Your task to perform on an android device: Open Google Chrome and open the bookmarks view Image 0: 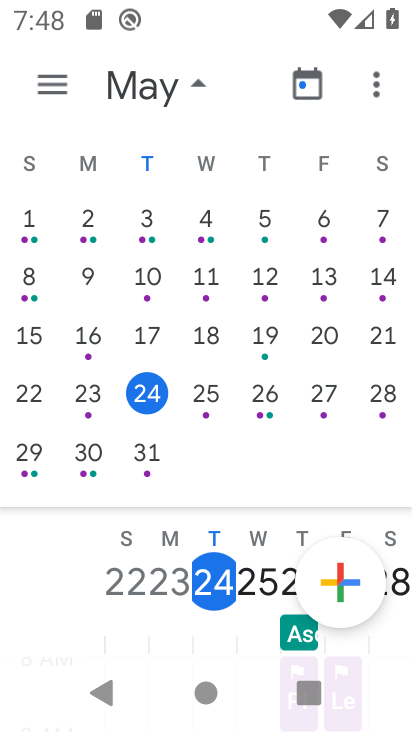
Step 0: press home button
Your task to perform on an android device: Open Google Chrome and open the bookmarks view Image 1: 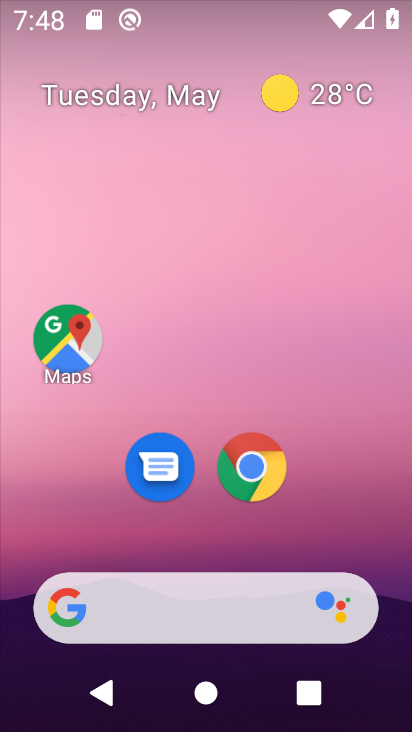
Step 1: click (250, 461)
Your task to perform on an android device: Open Google Chrome and open the bookmarks view Image 2: 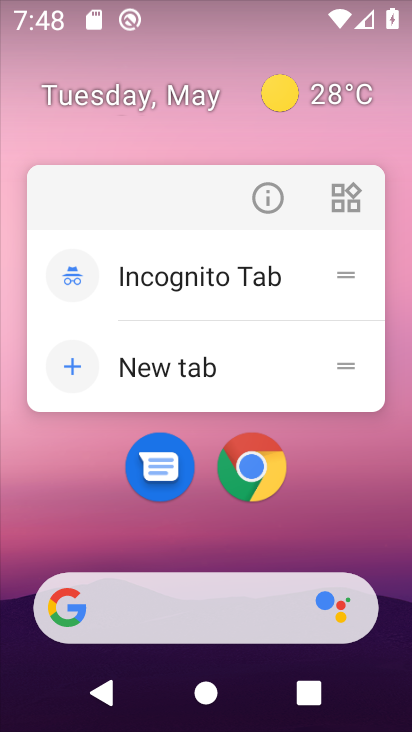
Step 2: click (244, 463)
Your task to perform on an android device: Open Google Chrome and open the bookmarks view Image 3: 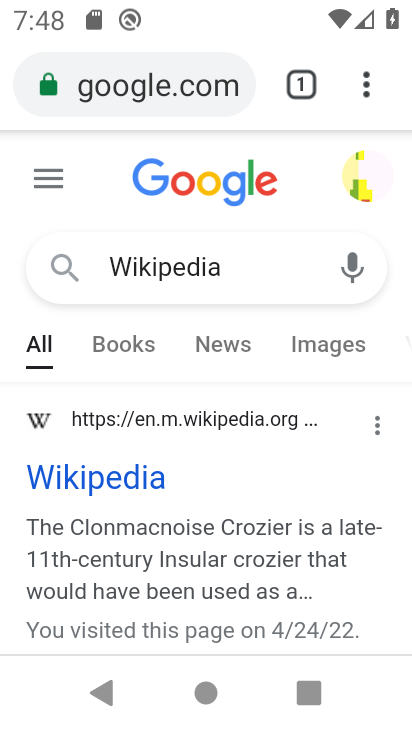
Step 3: click (368, 79)
Your task to perform on an android device: Open Google Chrome and open the bookmarks view Image 4: 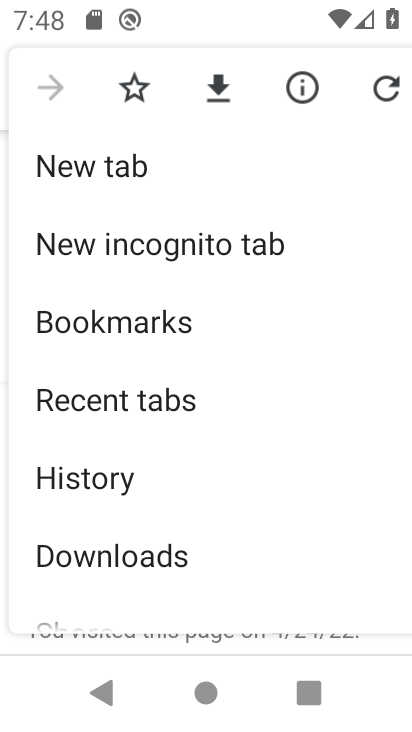
Step 4: click (100, 319)
Your task to perform on an android device: Open Google Chrome and open the bookmarks view Image 5: 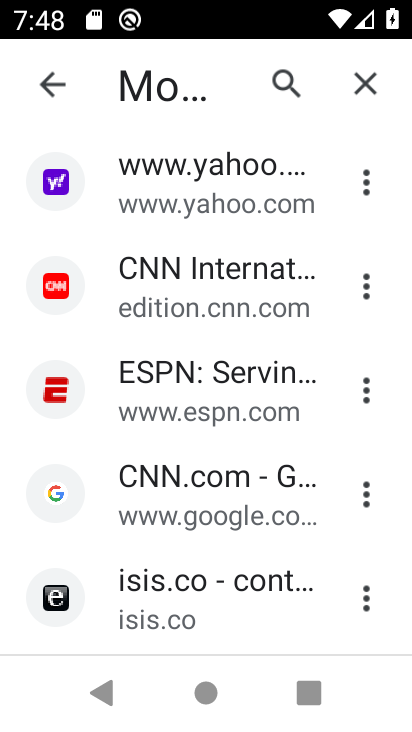
Step 5: task complete